Your task to perform on an android device: Check my gmail inbox Image 0: 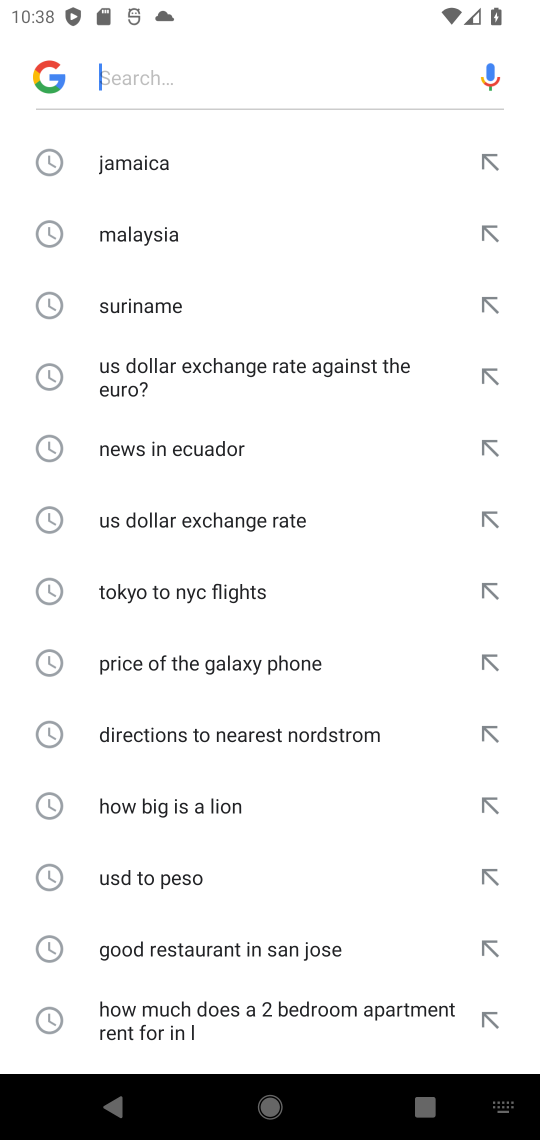
Step 0: press home button
Your task to perform on an android device: Check my gmail inbox Image 1: 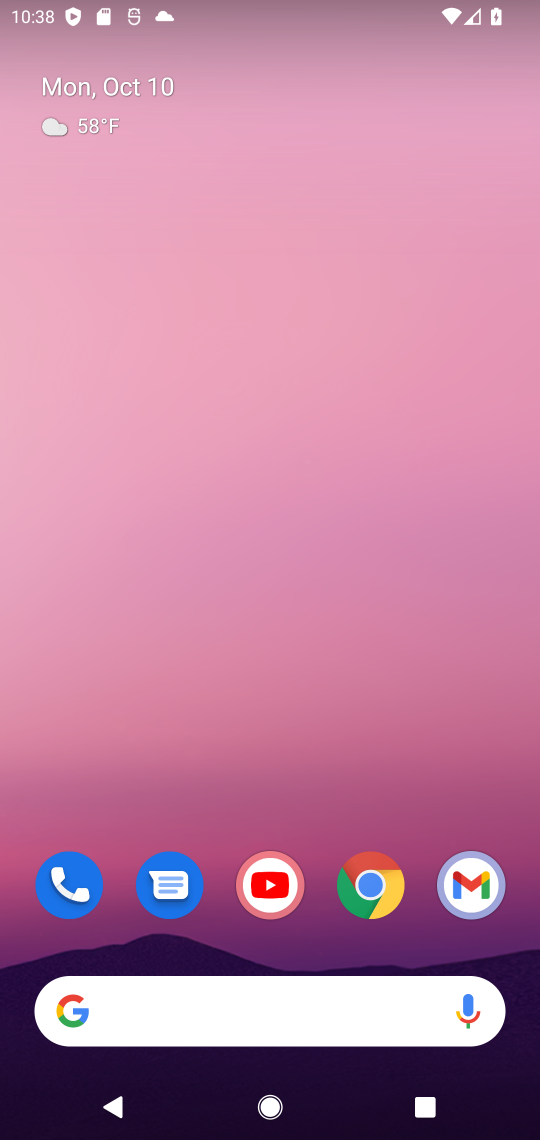
Step 1: drag from (322, 794) to (256, 199)
Your task to perform on an android device: Check my gmail inbox Image 2: 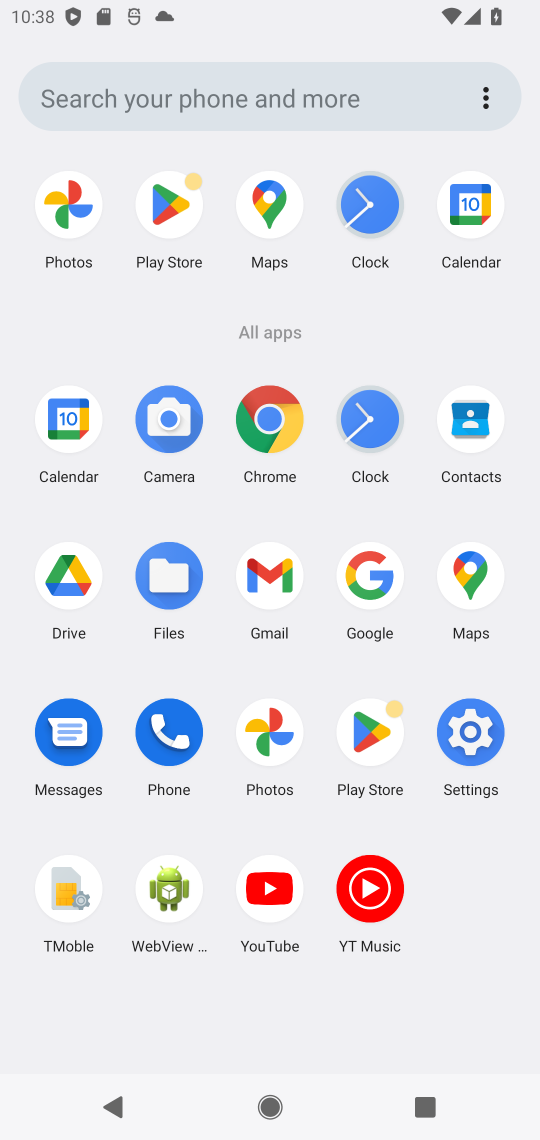
Step 2: click (277, 582)
Your task to perform on an android device: Check my gmail inbox Image 3: 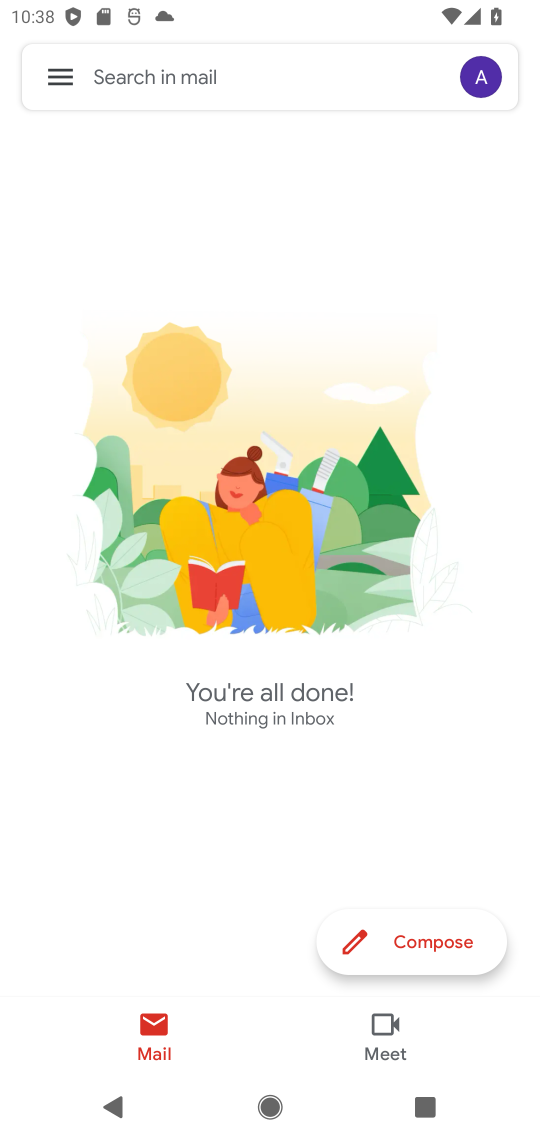
Step 3: click (56, 91)
Your task to perform on an android device: Check my gmail inbox Image 4: 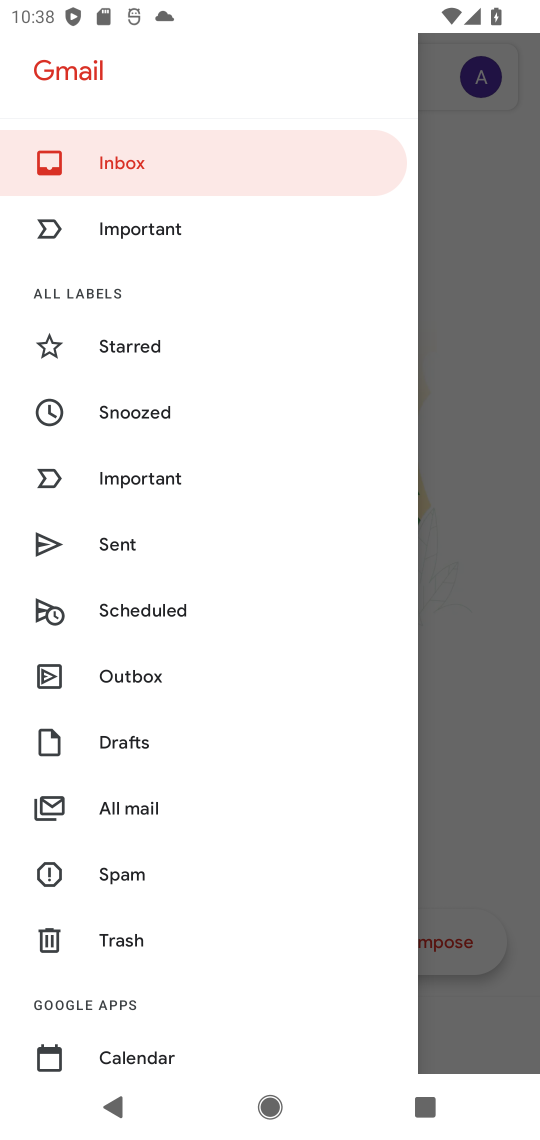
Step 4: click (139, 174)
Your task to perform on an android device: Check my gmail inbox Image 5: 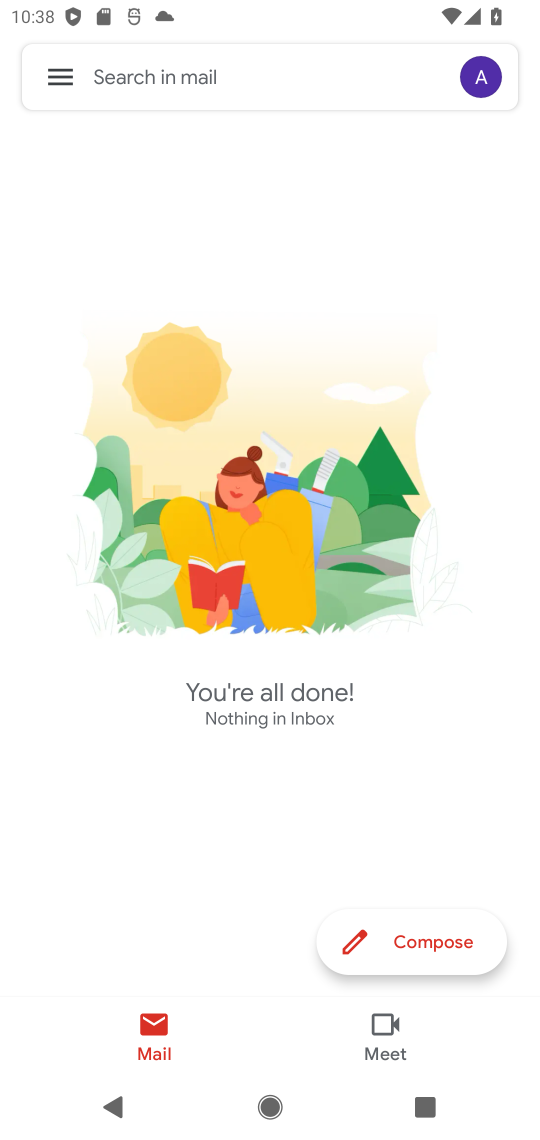
Step 5: task complete